Your task to perform on an android device: open device folders in google photos Image 0: 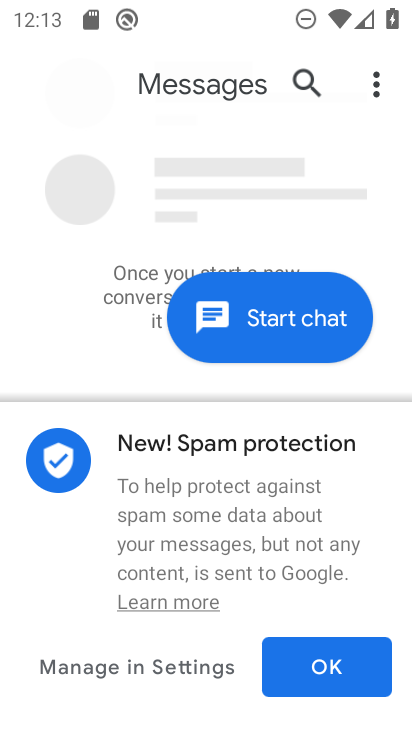
Step 0: press home button
Your task to perform on an android device: open device folders in google photos Image 1: 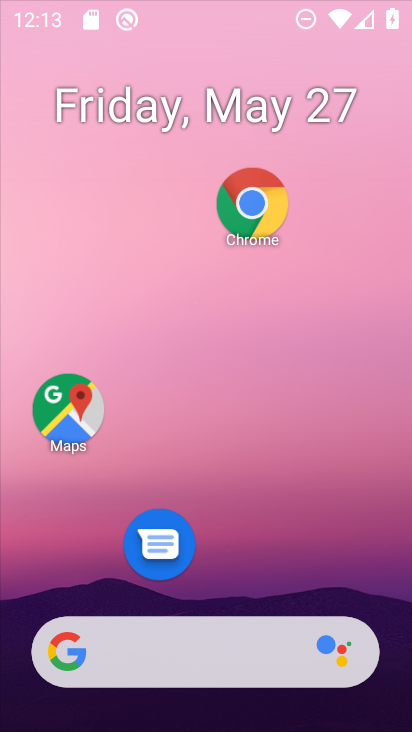
Step 1: drag from (229, 614) to (242, 298)
Your task to perform on an android device: open device folders in google photos Image 2: 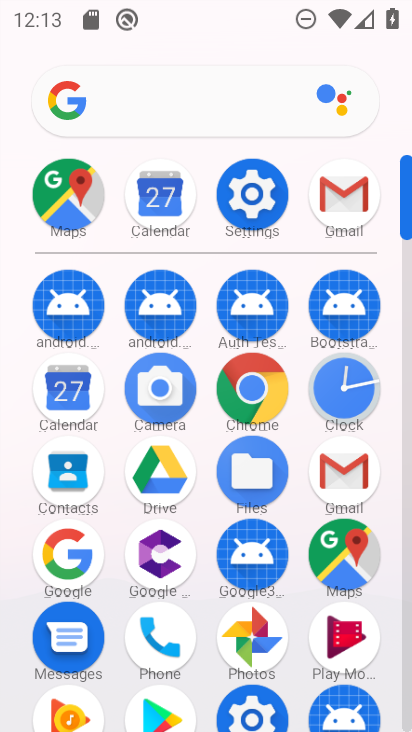
Step 2: click (247, 635)
Your task to perform on an android device: open device folders in google photos Image 3: 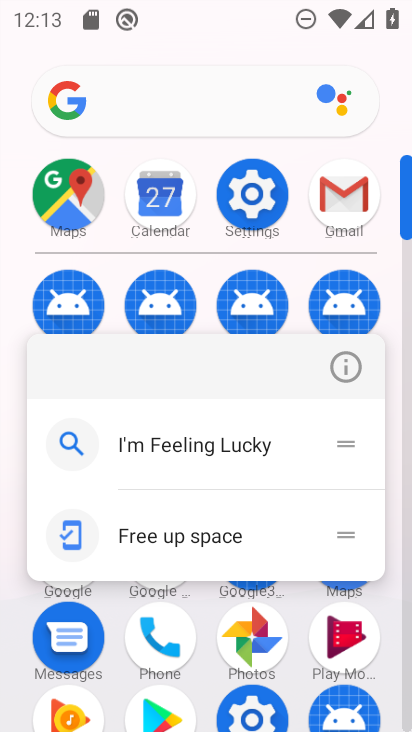
Step 3: click (337, 377)
Your task to perform on an android device: open device folders in google photos Image 4: 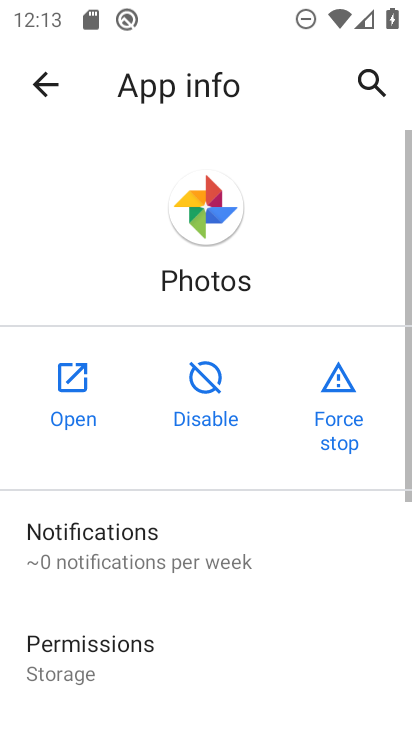
Step 4: click (70, 358)
Your task to perform on an android device: open device folders in google photos Image 5: 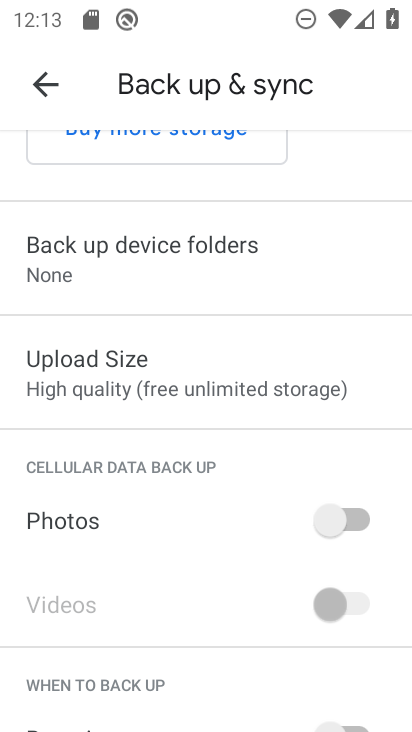
Step 5: click (153, 275)
Your task to perform on an android device: open device folders in google photos Image 6: 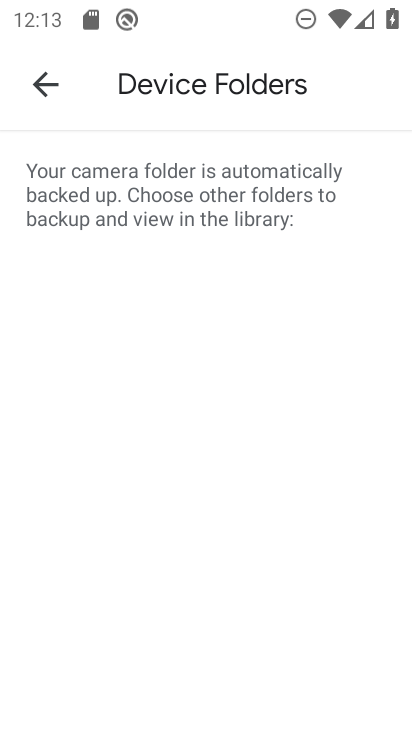
Step 6: task complete